Your task to perform on an android device: Open display settings Image 0: 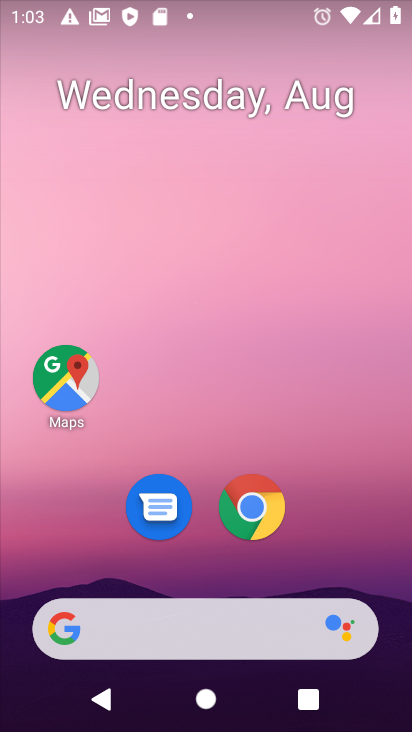
Step 0: drag from (161, 582) to (222, 12)
Your task to perform on an android device: Open display settings Image 1: 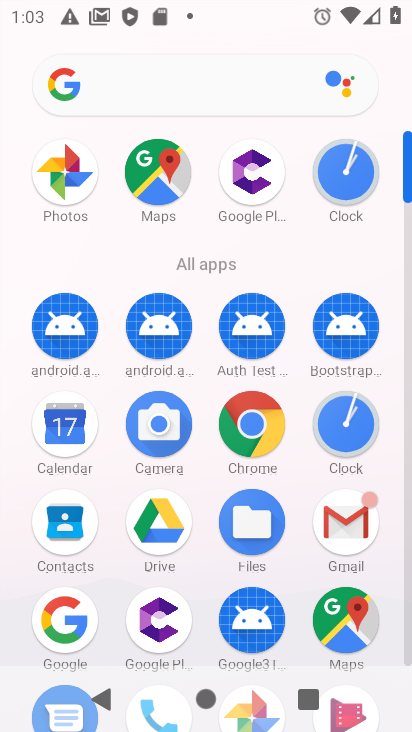
Step 1: drag from (210, 580) to (141, 48)
Your task to perform on an android device: Open display settings Image 2: 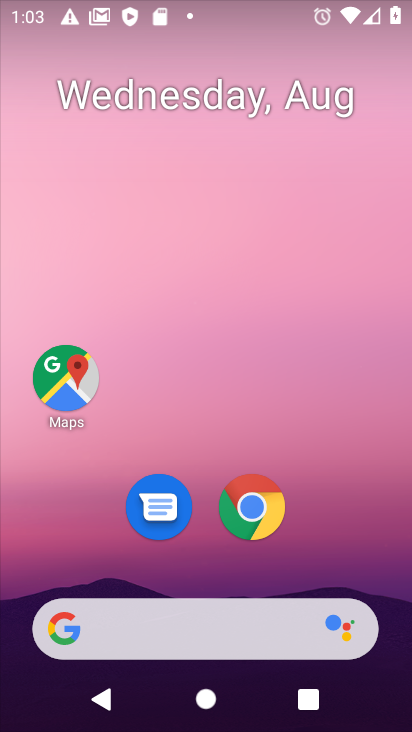
Step 2: drag from (212, 551) to (128, 19)
Your task to perform on an android device: Open display settings Image 3: 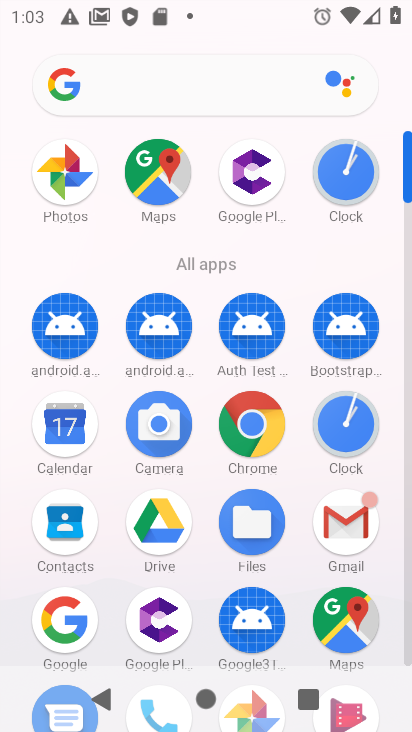
Step 3: drag from (214, 564) to (147, 83)
Your task to perform on an android device: Open display settings Image 4: 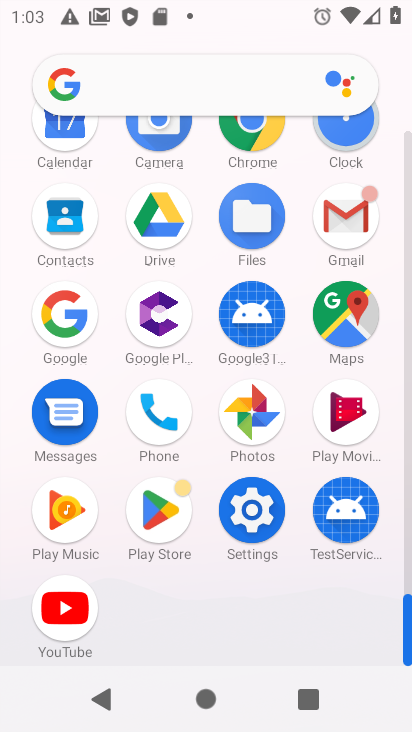
Step 4: click (259, 505)
Your task to perform on an android device: Open display settings Image 5: 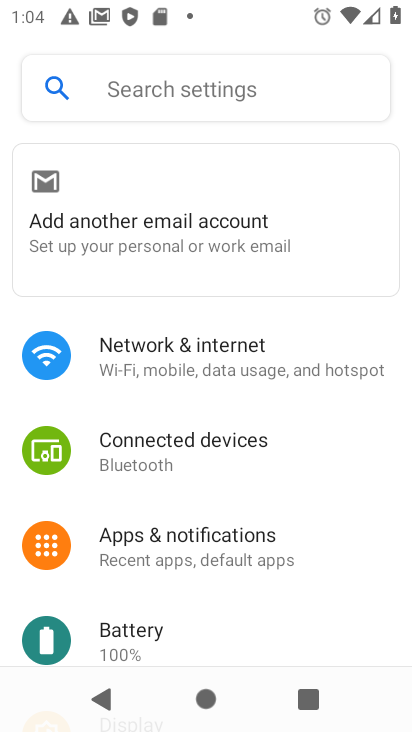
Step 5: drag from (210, 613) to (179, 208)
Your task to perform on an android device: Open display settings Image 6: 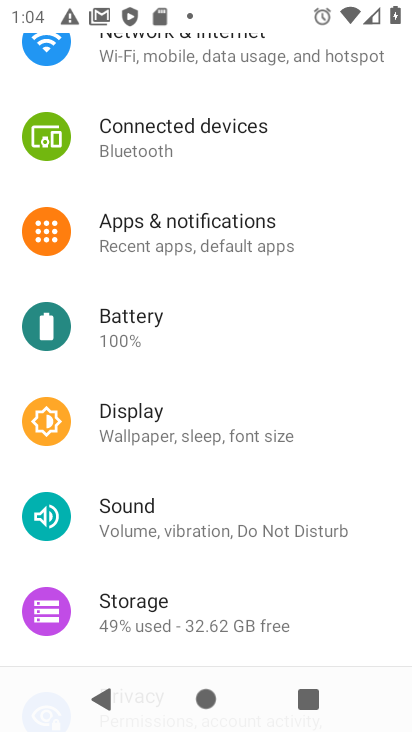
Step 6: click (137, 433)
Your task to perform on an android device: Open display settings Image 7: 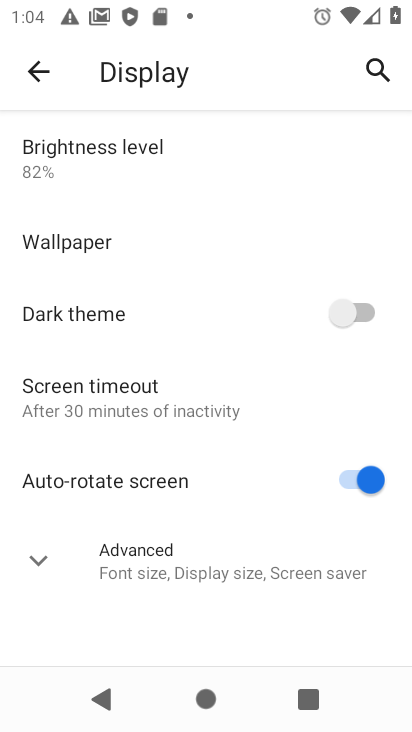
Step 7: click (101, 557)
Your task to perform on an android device: Open display settings Image 8: 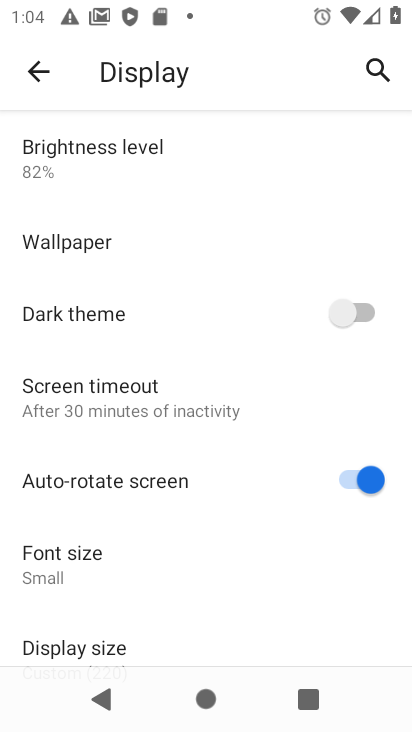
Step 8: task complete